Your task to perform on an android device: toggle priority inbox in the gmail app Image 0: 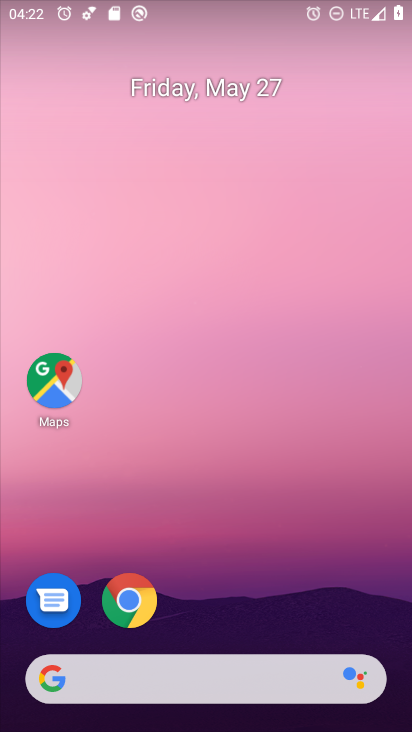
Step 0: drag from (212, 681) to (223, 269)
Your task to perform on an android device: toggle priority inbox in the gmail app Image 1: 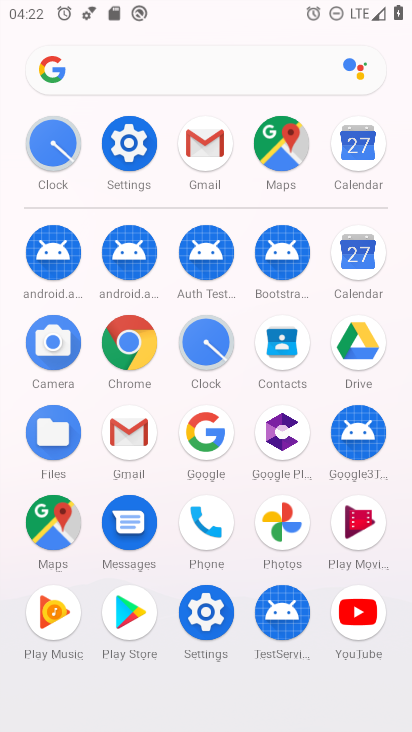
Step 1: click (126, 437)
Your task to perform on an android device: toggle priority inbox in the gmail app Image 2: 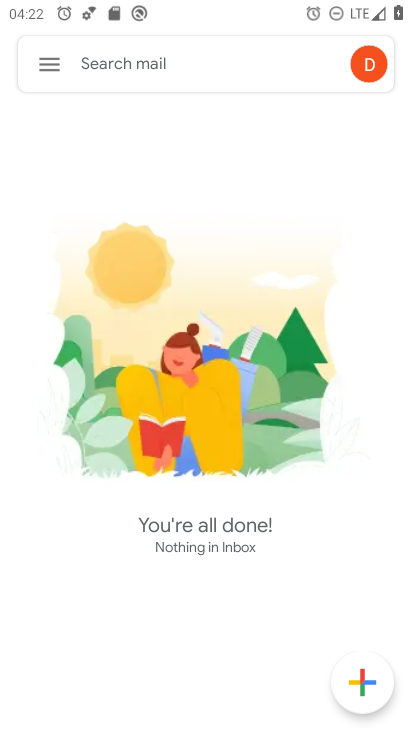
Step 2: click (52, 65)
Your task to perform on an android device: toggle priority inbox in the gmail app Image 3: 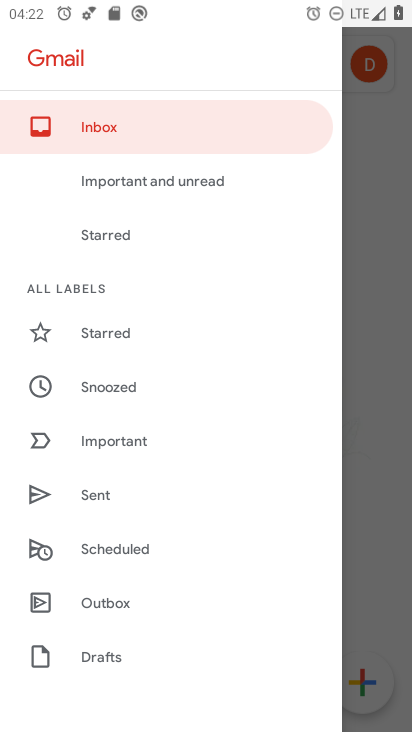
Step 3: drag from (125, 649) to (127, 441)
Your task to perform on an android device: toggle priority inbox in the gmail app Image 4: 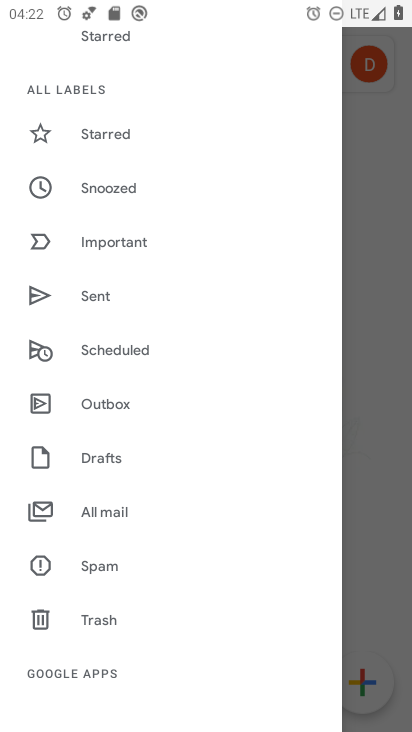
Step 4: drag from (138, 651) to (138, 211)
Your task to perform on an android device: toggle priority inbox in the gmail app Image 5: 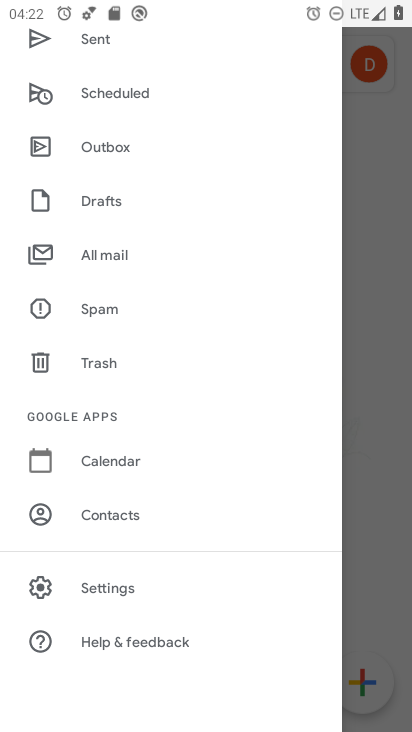
Step 5: click (116, 588)
Your task to perform on an android device: toggle priority inbox in the gmail app Image 6: 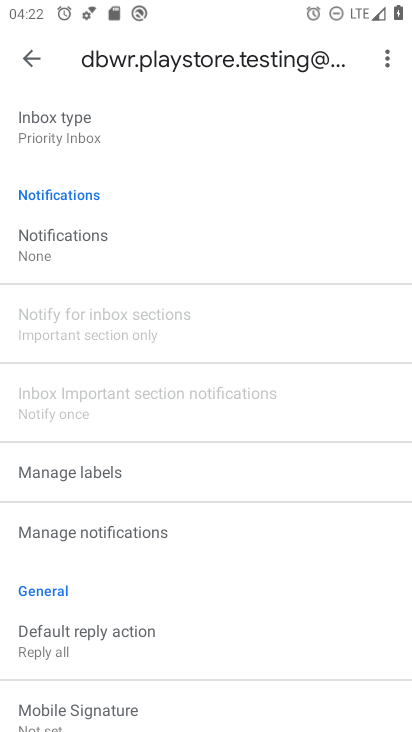
Step 6: click (65, 138)
Your task to perform on an android device: toggle priority inbox in the gmail app Image 7: 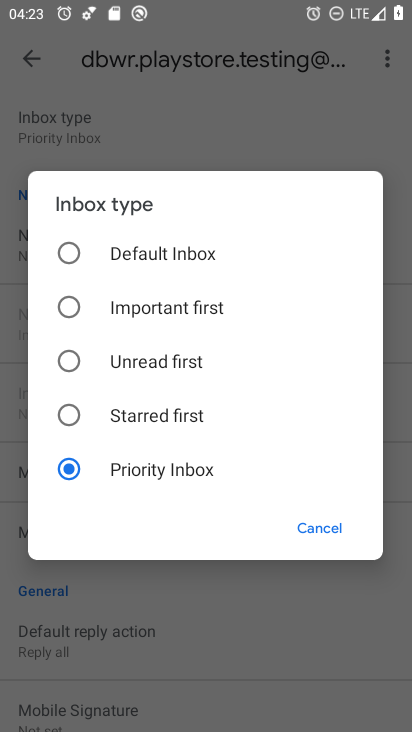
Step 7: click (72, 250)
Your task to perform on an android device: toggle priority inbox in the gmail app Image 8: 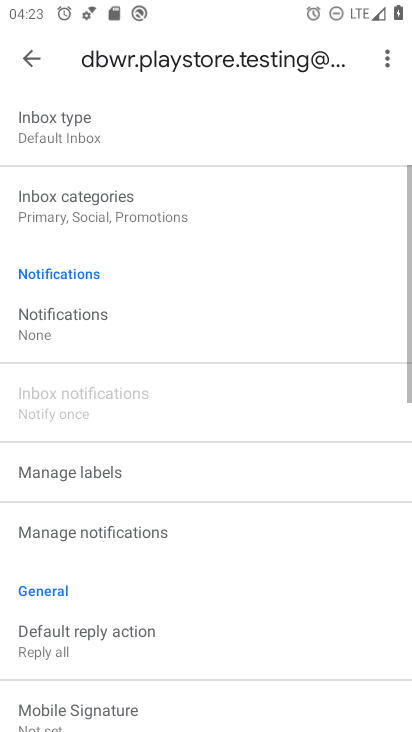
Step 8: task complete